Your task to perform on an android device: toggle airplane mode Image 0: 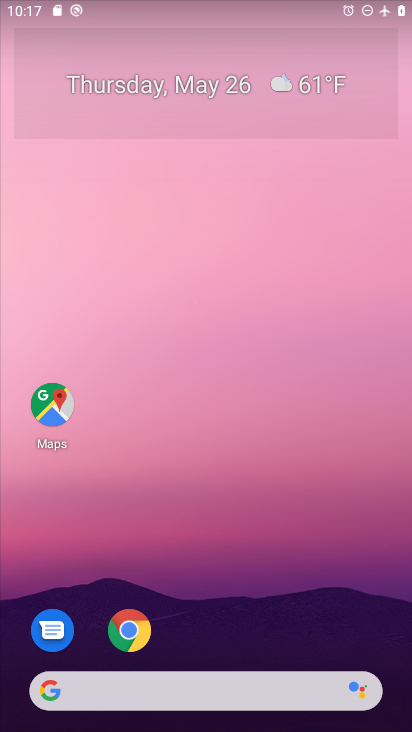
Step 0: drag from (223, 654) to (222, 284)
Your task to perform on an android device: toggle airplane mode Image 1: 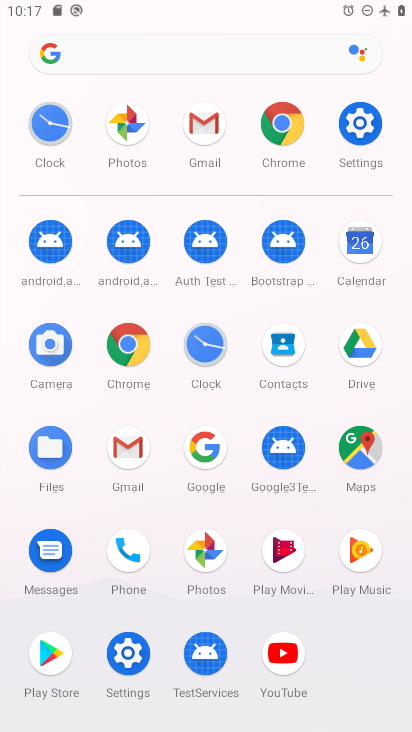
Step 1: click (359, 138)
Your task to perform on an android device: toggle airplane mode Image 2: 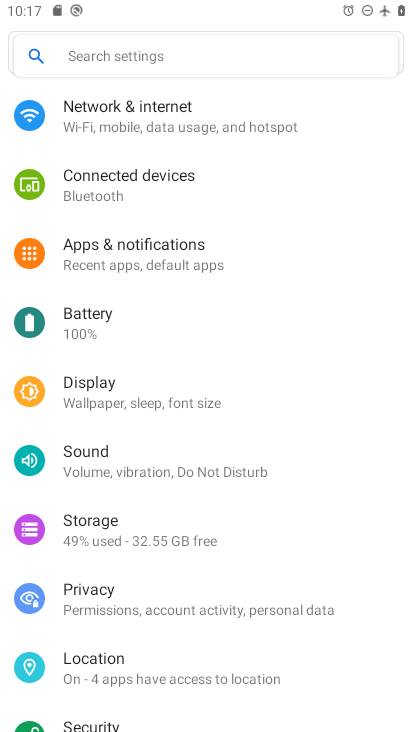
Step 2: click (204, 113)
Your task to perform on an android device: toggle airplane mode Image 3: 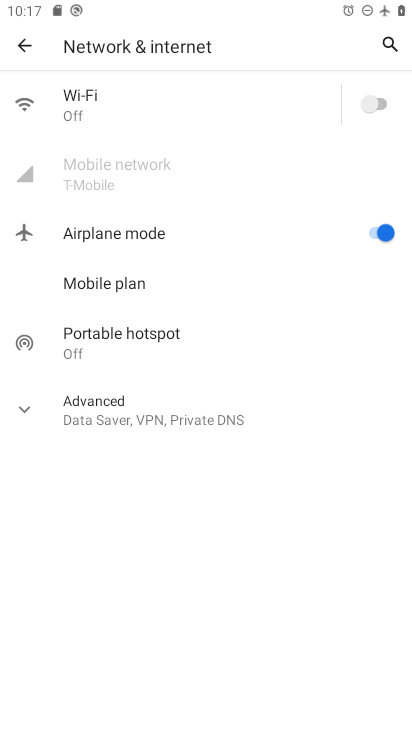
Step 3: click (154, 222)
Your task to perform on an android device: toggle airplane mode Image 4: 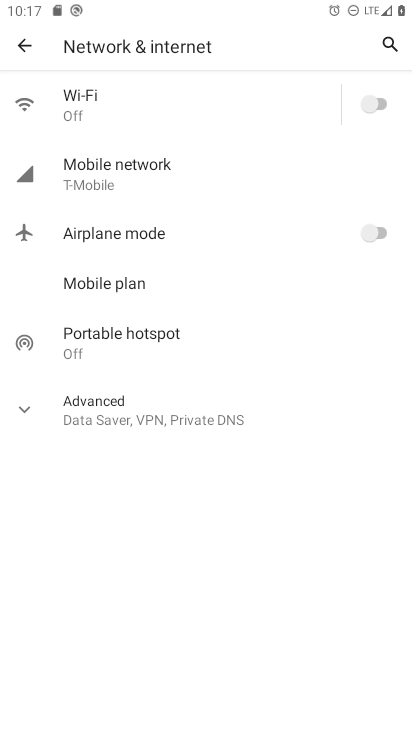
Step 4: task complete